Your task to perform on an android device: change the clock display to digital Image 0: 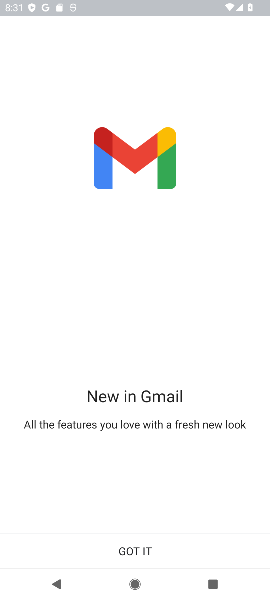
Step 0: press home button
Your task to perform on an android device: change the clock display to digital Image 1: 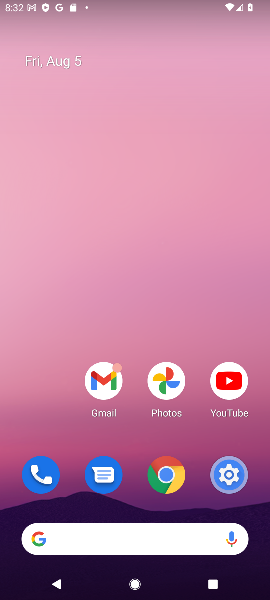
Step 1: drag from (90, 555) to (104, 142)
Your task to perform on an android device: change the clock display to digital Image 2: 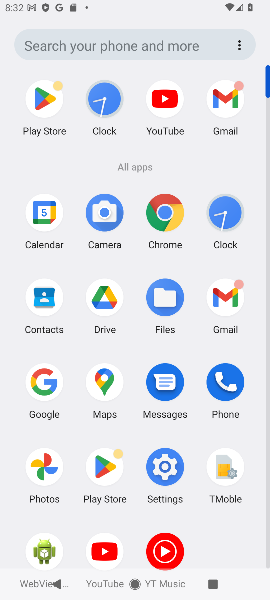
Step 2: click (227, 218)
Your task to perform on an android device: change the clock display to digital Image 3: 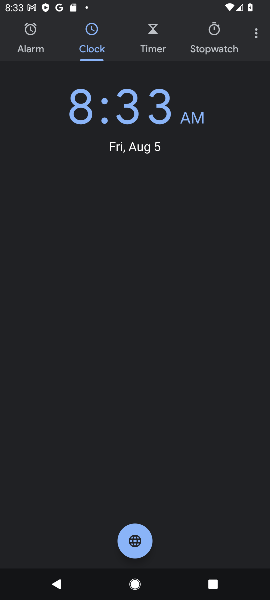
Step 3: click (260, 23)
Your task to perform on an android device: change the clock display to digital Image 4: 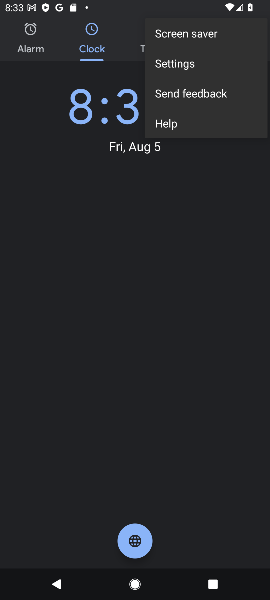
Step 4: click (211, 61)
Your task to perform on an android device: change the clock display to digital Image 5: 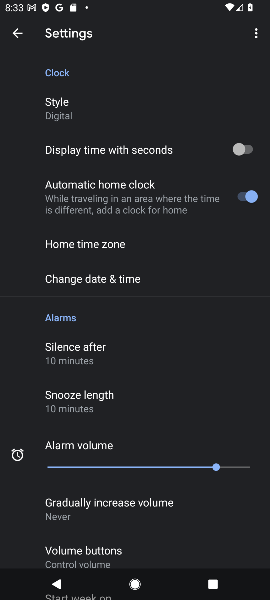
Step 5: click (67, 115)
Your task to perform on an android device: change the clock display to digital Image 6: 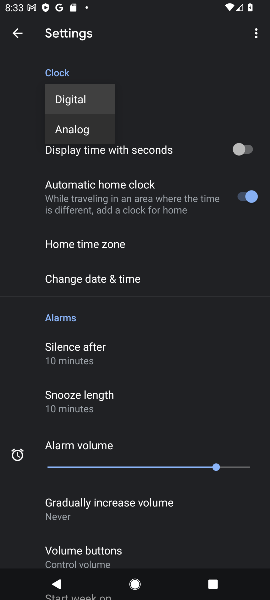
Step 6: task complete